Your task to perform on an android device: What's the weather going to be this weekend? Image 0: 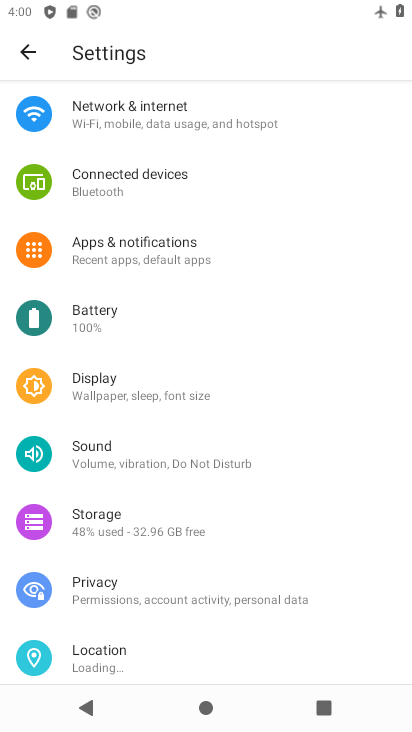
Step 0: press home button
Your task to perform on an android device: What's the weather going to be this weekend? Image 1: 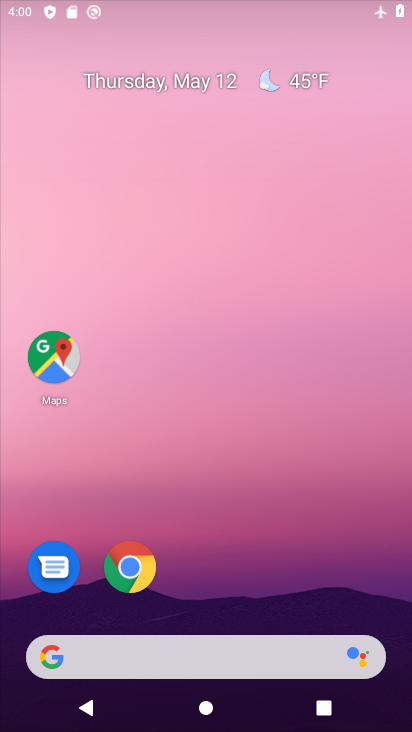
Step 1: drag from (230, 529) to (198, 200)
Your task to perform on an android device: What's the weather going to be this weekend? Image 2: 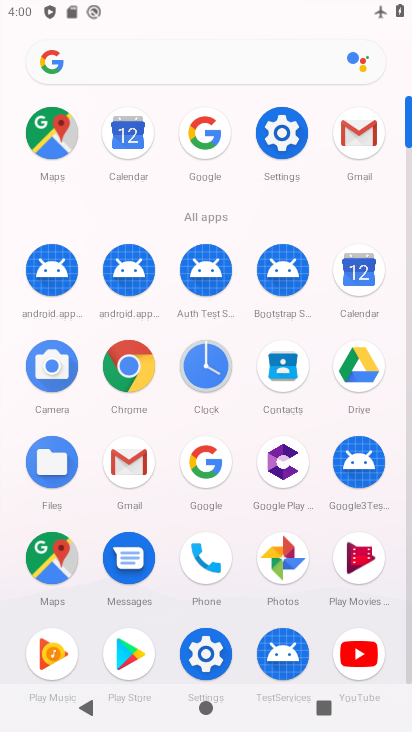
Step 2: click (196, 446)
Your task to perform on an android device: What's the weather going to be this weekend? Image 3: 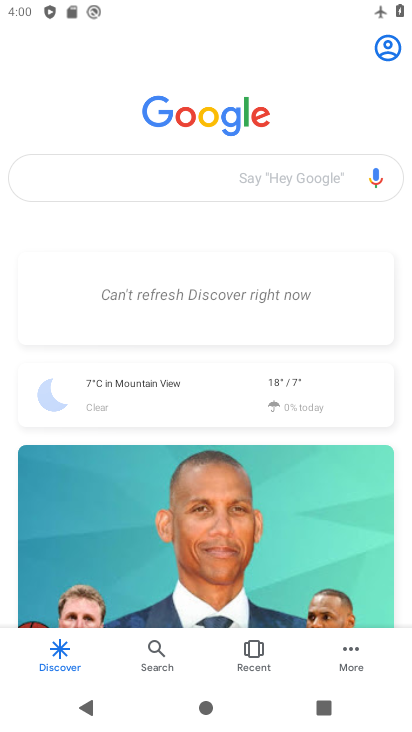
Step 3: click (188, 374)
Your task to perform on an android device: What's the weather going to be this weekend? Image 4: 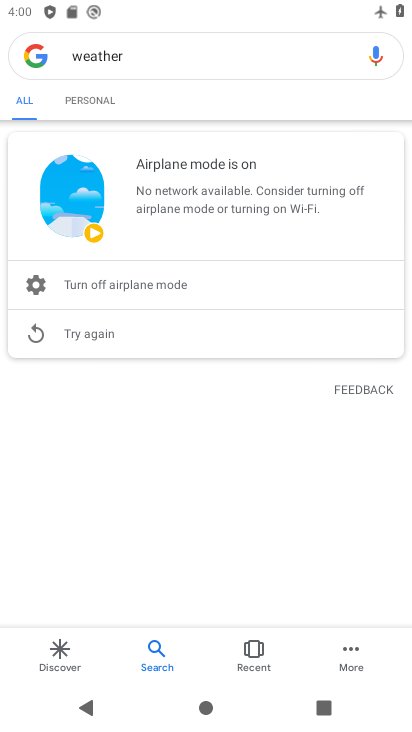
Step 4: task complete